Your task to perform on an android device: turn off picture-in-picture Image 0: 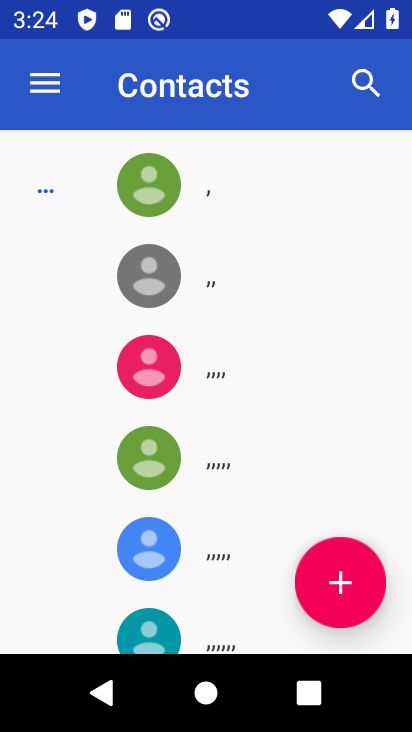
Step 0: press home button
Your task to perform on an android device: turn off picture-in-picture Image 1: 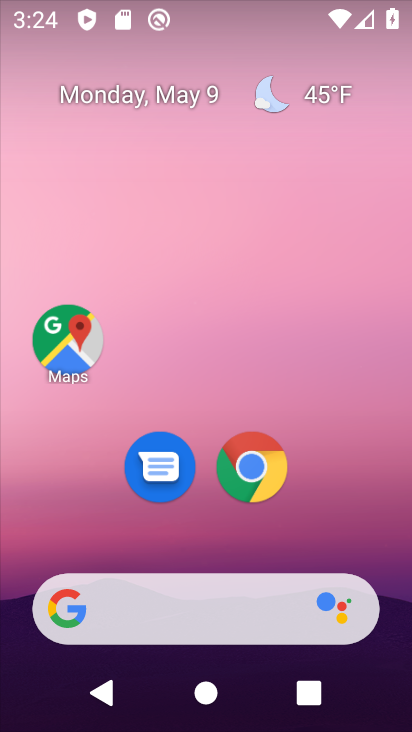
Step 1: drag from (356, 486) to (341, 162)
Your task to perform on an android device: turn off picture-in-picture Image 2: 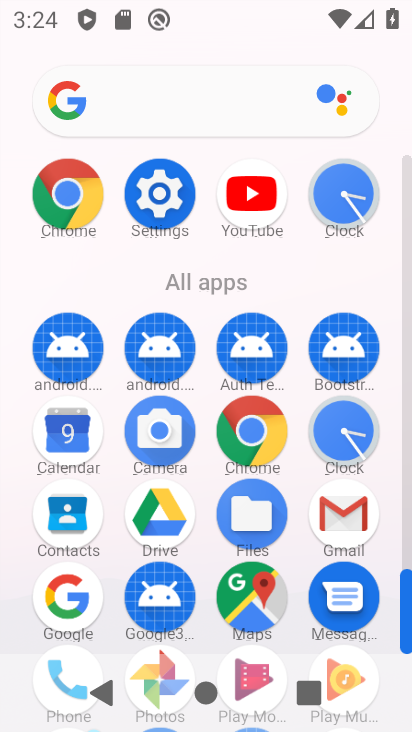
Step 2: click (172, 209)
Your task to perform on an android device: turn off picture-in-picture Image 3: 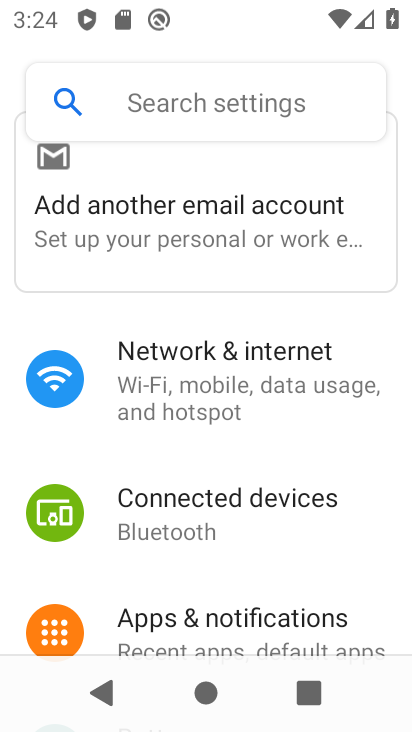
Step 3: click (245, 617)
Your task to perform on an android device: turn off picture-in-picture Image 4: 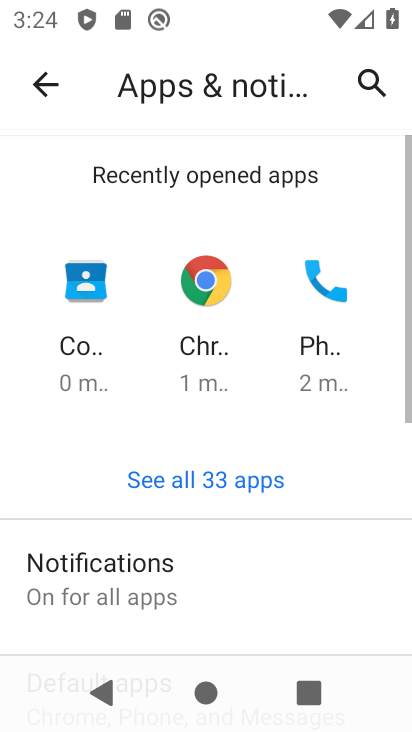
Step 4: drag from (229, 587) to (272, 185)
Your task to perform on an android device: turn off picture-in-picture Image 5: 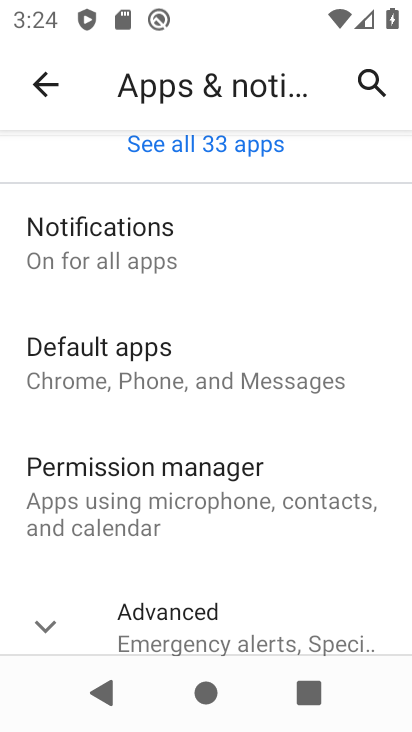
Step 5: click (34, 623)
Your task to perform on an android device: turn off picture-in-picture Image 6: 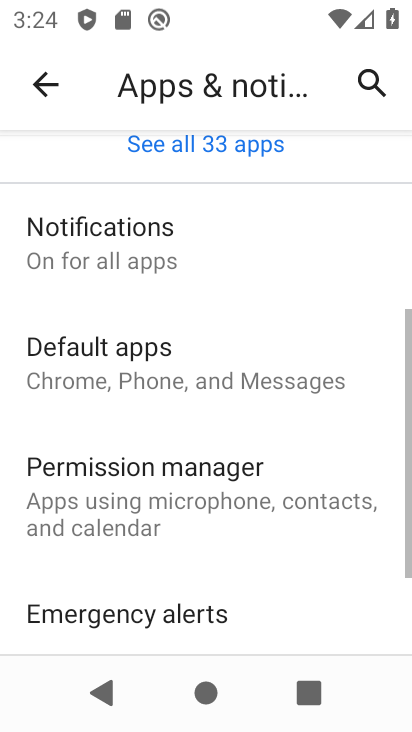
Step 6: drag from (161, 610) to (192, 315)
Your task to perform on an android device: turn off picture-in-picture Image 7: 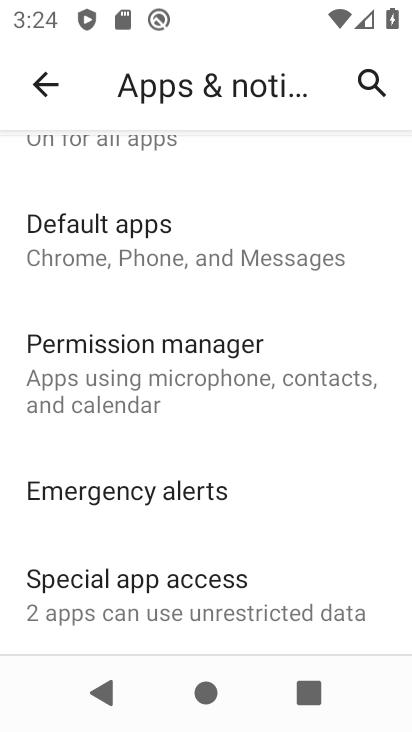
Step 7: click (204, 592)
Your task to perform on an android device: turn off picture-in-picture Image 8: 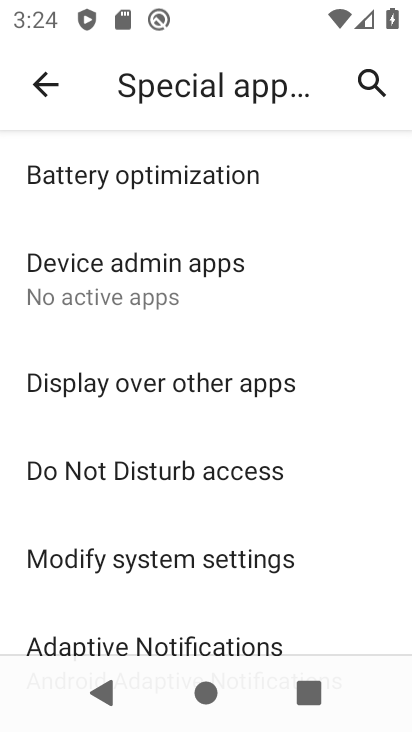
Step 8: drag from (128, 595) to (162, 232)
Your task to perform on an android device: turn off picture-in-picture Image 9: 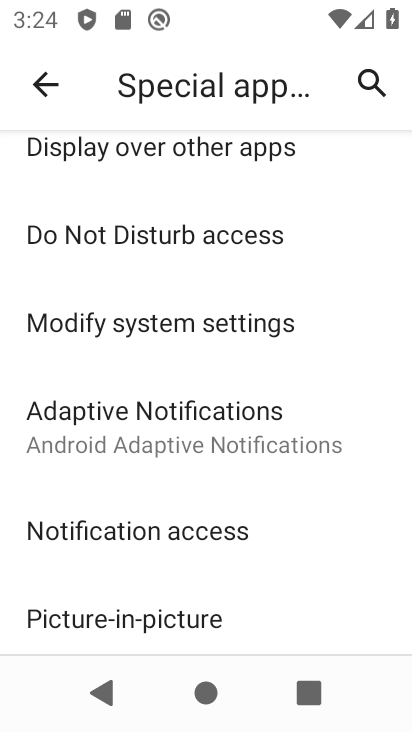
Step 9: drag from (222, 468) to (234, 242)
Your task to perform on an android device: turn off picture-in-picture Image 10: 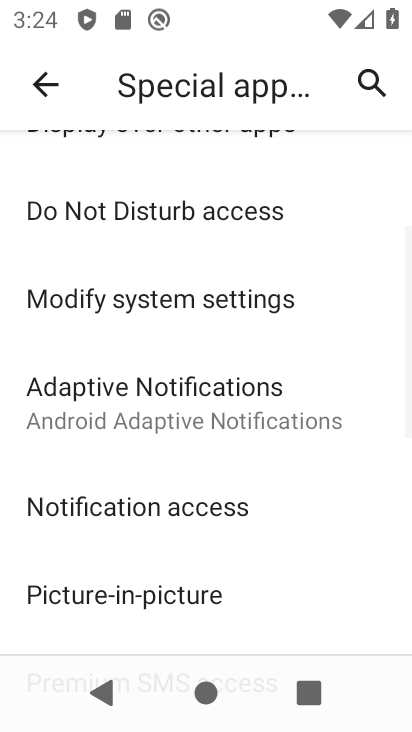
Step 10: click (183, 626)
Your task to perform on an android device: turn off picture-in-picture Image 11: 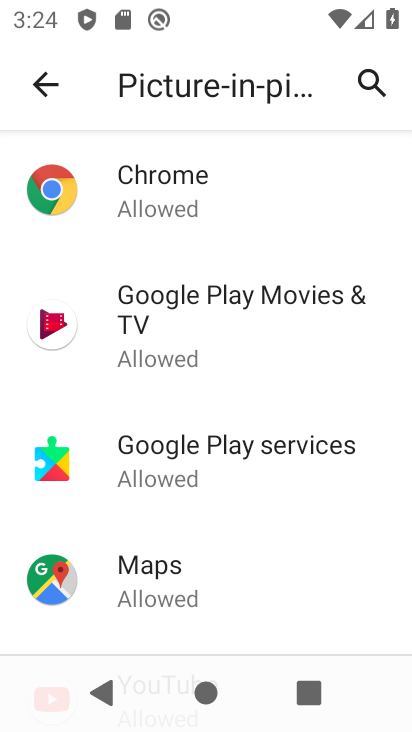
Step 11: click (146, 212)
Your task to perform on an android device: turn off picture-in-picture Image 12: 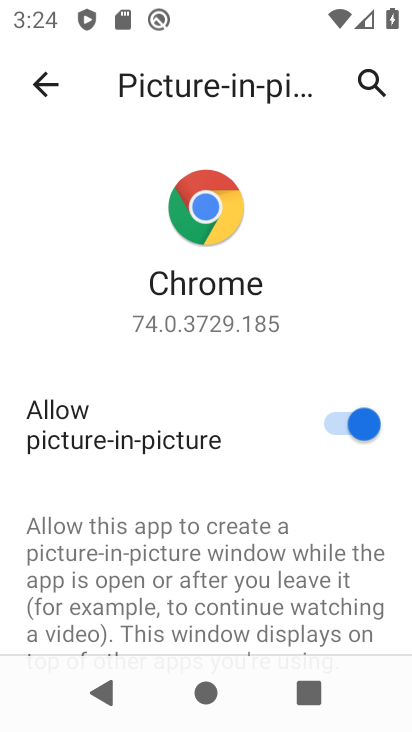
Step 12: click (361, 431)
Your task to perform on an android device: turn off picture-in-picture Image 13: 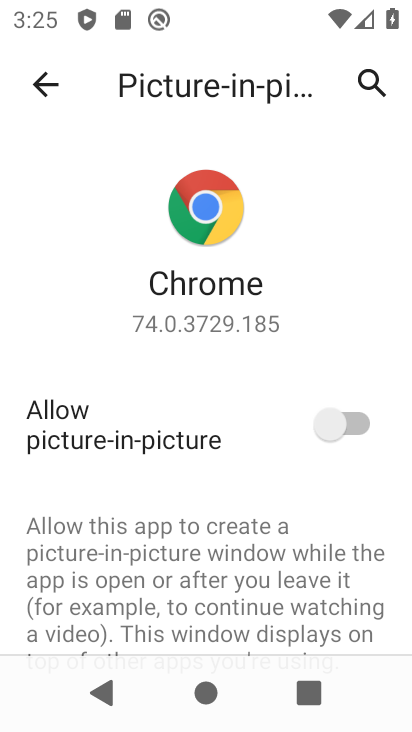
Step 13: task complete